Your task to perform on an android device: Go to Yahoo.com Image 0: 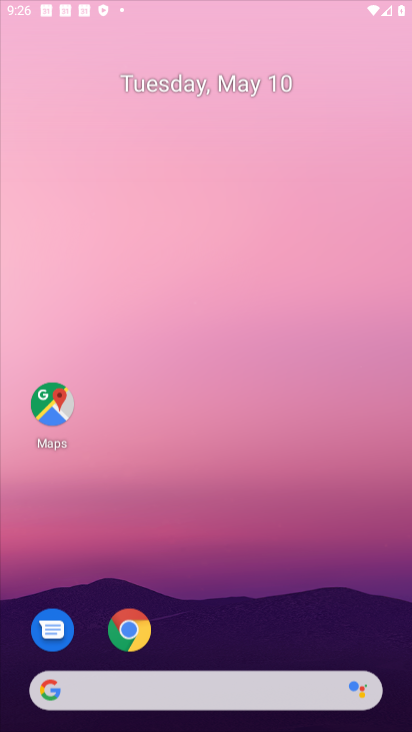
Step 0: click (252, 55)
Your task to perform on an android device: Go to Yahoo.com Image 1: 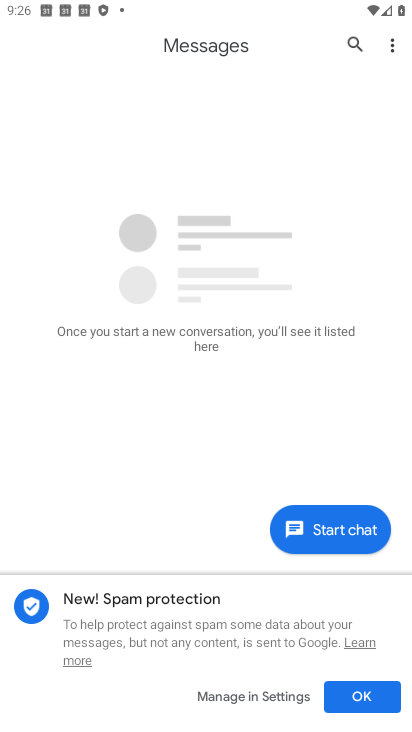
Step 1: press home button
Your task to perform on an android device: Go to Yahoo.com Image 2: 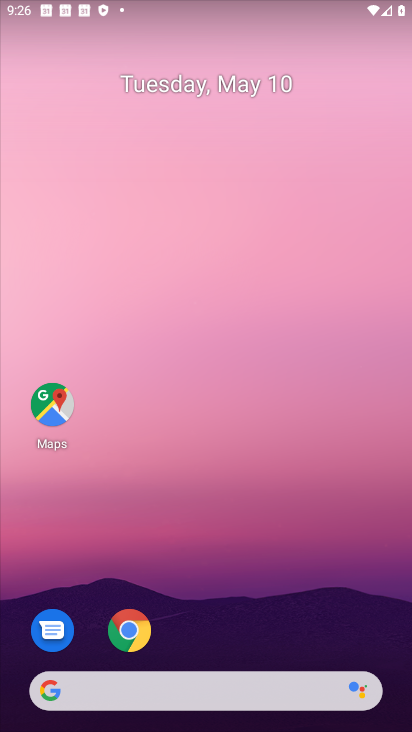
Step 2: click (243, 702)
Your task to perform on an android device: Go to Yahoo.com Image 3: 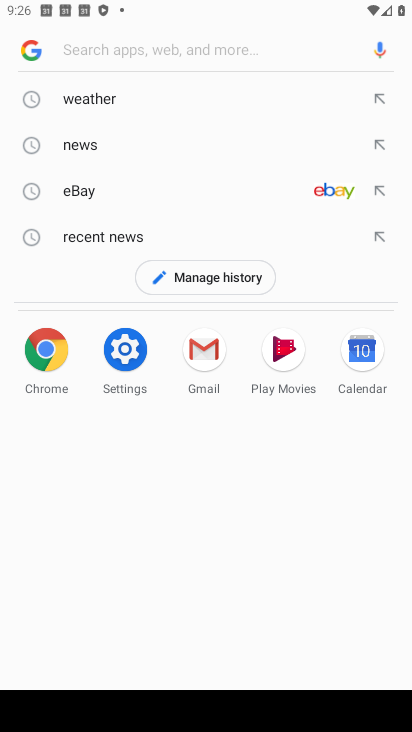
Step 3: type "yahoo.com"
Your task to perform on an android device: Go to Yahoo.com Image 4: 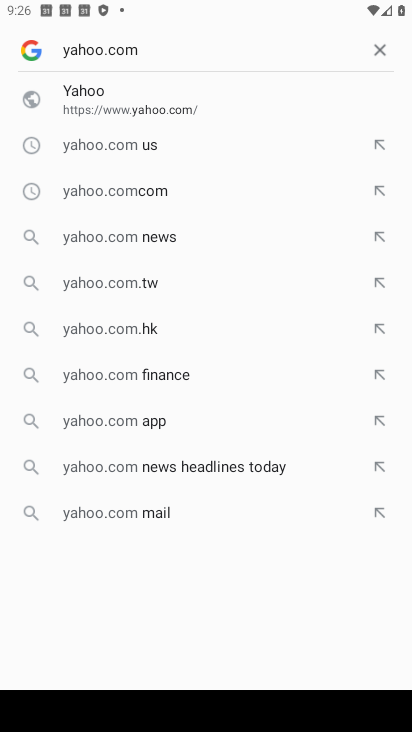
Step 4: click (223, 110)
Your task to perform on an android device: Go to Yahoo.com Image 5: 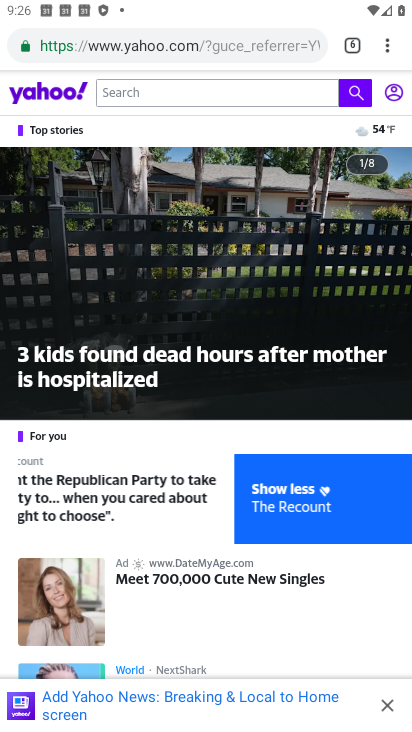
Step 5: task complete